Your task to perform on an android device: Open Chrome and go to settings Image 0: 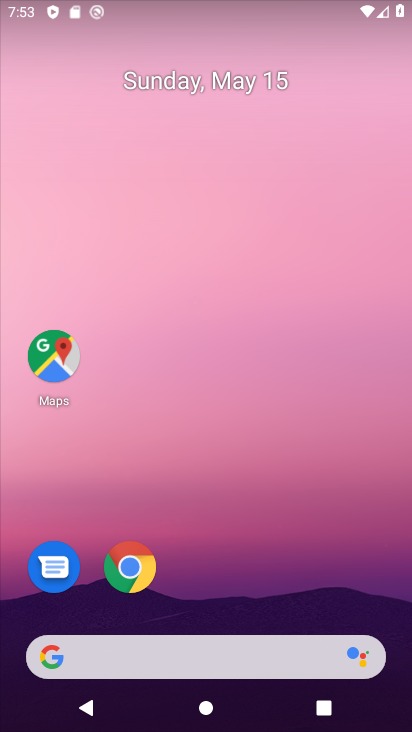
Step 0: click (126, 579)
Your task to perform on an android device: Open Chrome and go to settings Image 1: 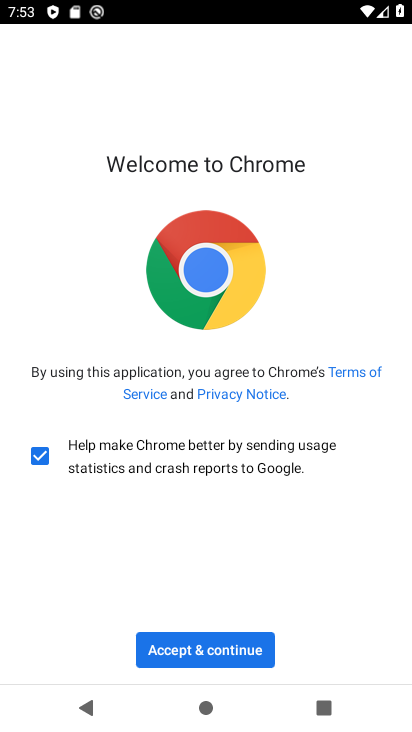
Step 1: click (186, 663)
Your task to perform on an android device: Open Chrome and go to settings Image 2: 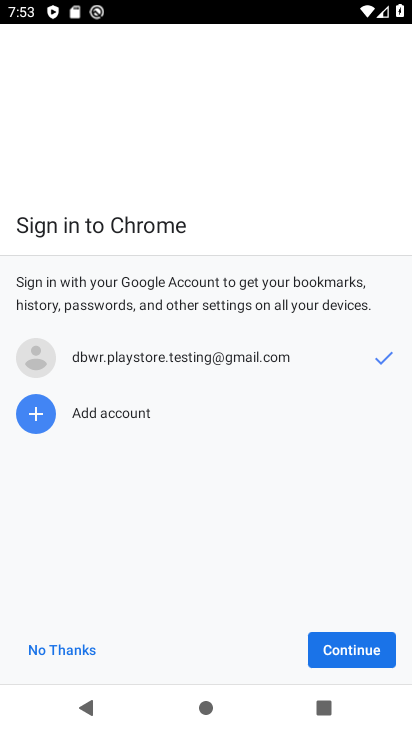
Step 2: click (344, 646)
Your task to perform on an android device: Open Chrome and go to settings Image 3: 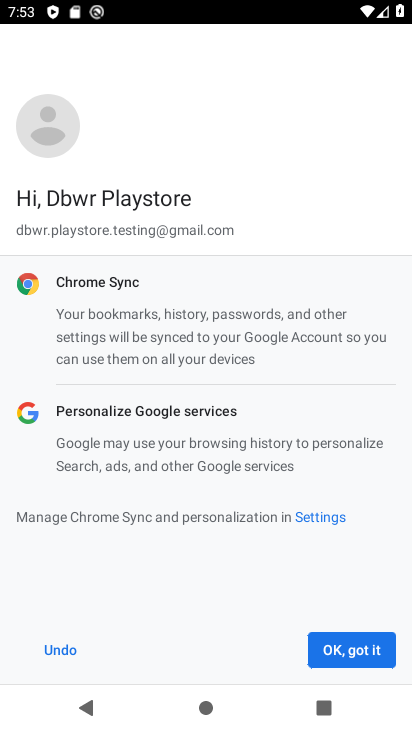
Step 3: click (355, 641)
Your task to perform on an android device: Open Chrome and go to settings Image 4: 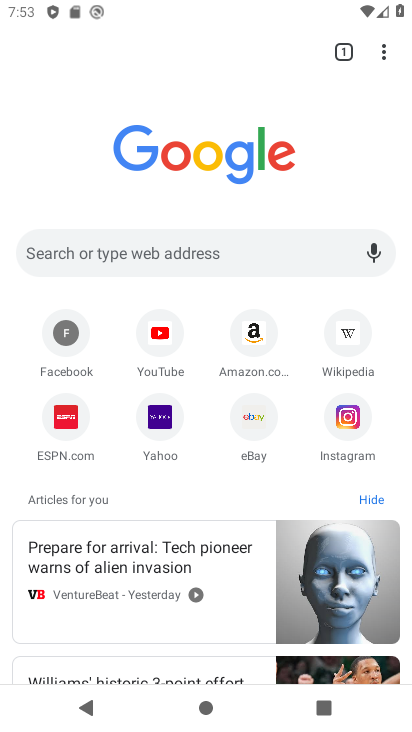
Step 4: task complete